Your task to perform on an android device: open wifi settings Image 0: 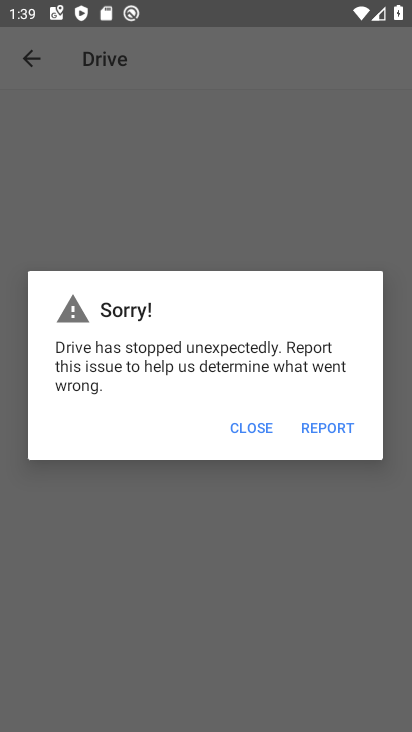
Step 0: press home button
Your task to perform on an android device: open wifi settings Image 1: 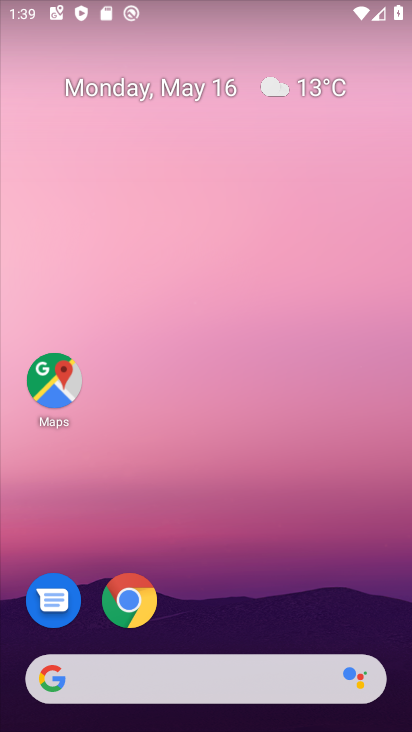
Step 1: drag from (202, 14) to (179, 474)
Your task to perform on an android device: open wifi settings Image 2: 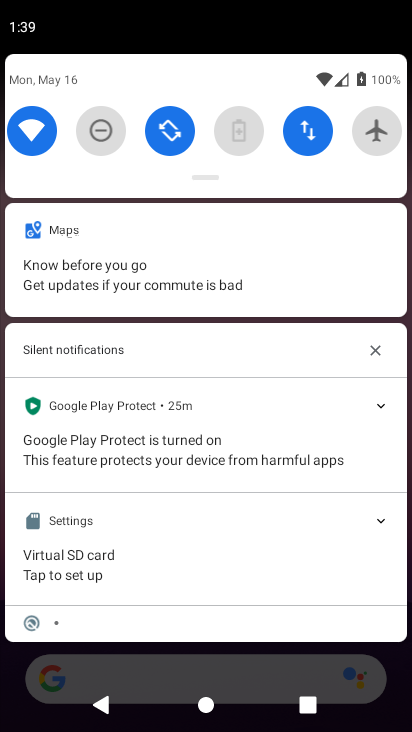
Step 2: click (22, 116)
Your task to perform on an android device: open wifi settings Image 3: 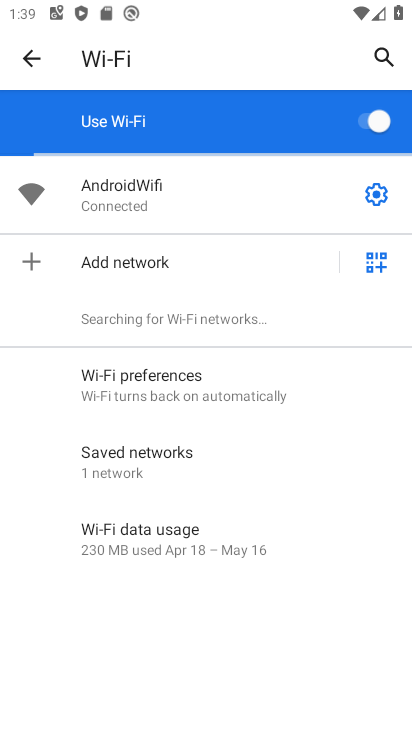
Step 3: task complete